Your task to perform on an android device: turn on notifications settings in the gmail app Image 0: 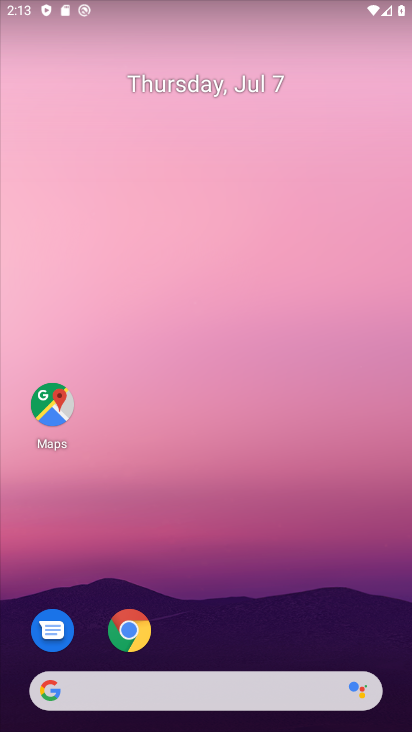
Step 0: drag from (242, 680) to (276, 265)
Your task to perform on an android device: turn on notifications settings in the gmail app Image 1: 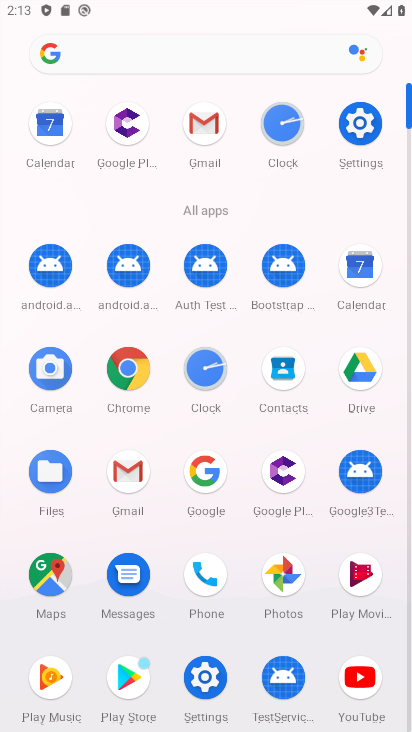
Step 1: click (210, 134)
Your task to perform on an android device: turn on notifications settings in the gmail app Image 2: 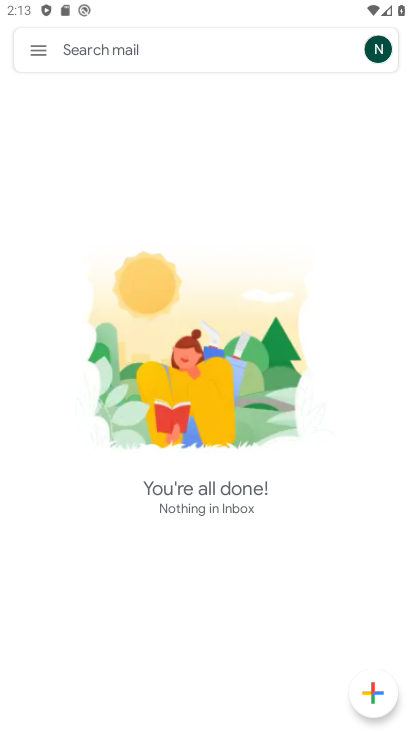
Step 2: click (26, 51)
Your task to perform on an android device: turn on notifications settings in the gmail app Image 3: 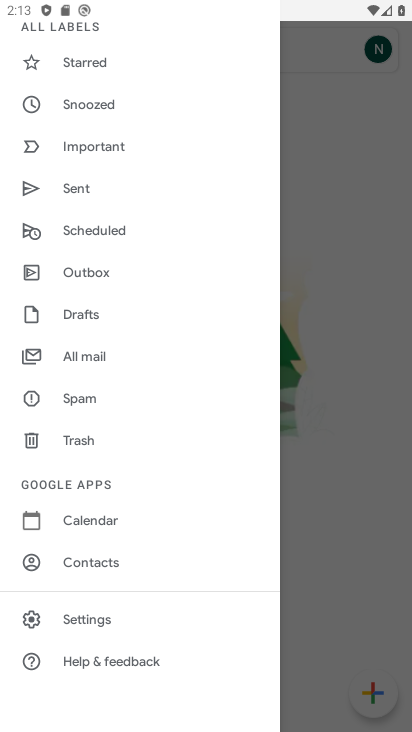
Step 3: click (97, 619)
Your task to perform on an android device: turn on notifications settings in the gmail app Image 4: 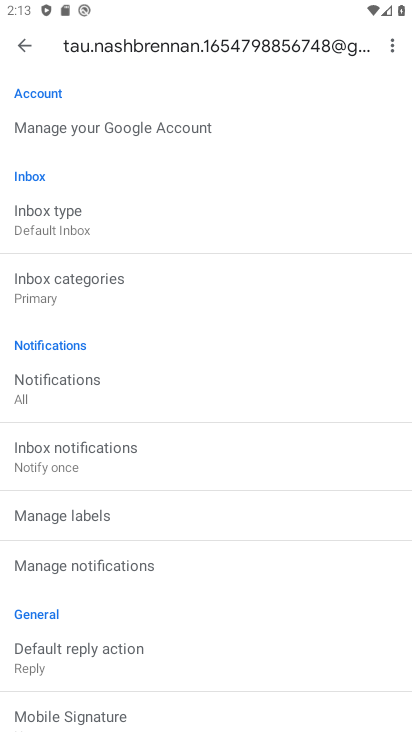
Step 4: click (30, 46)
Your task to perform on an android device: turn on notifications settings in the gmail app Image 5: 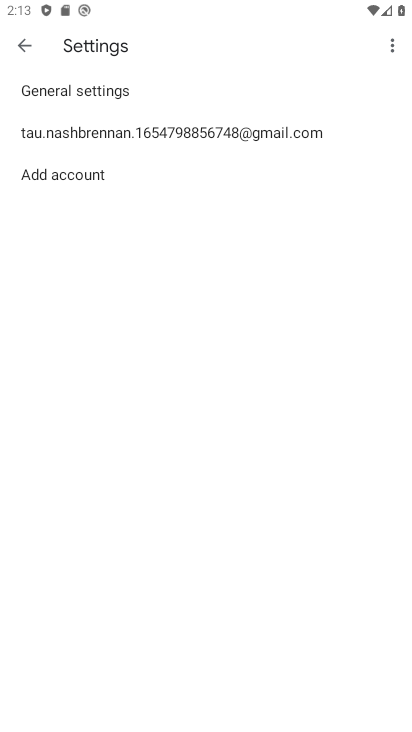
Step 5: click (91, 88)
Your task to perform on an android device: turn on notifications settings in the gmail app Image 6: 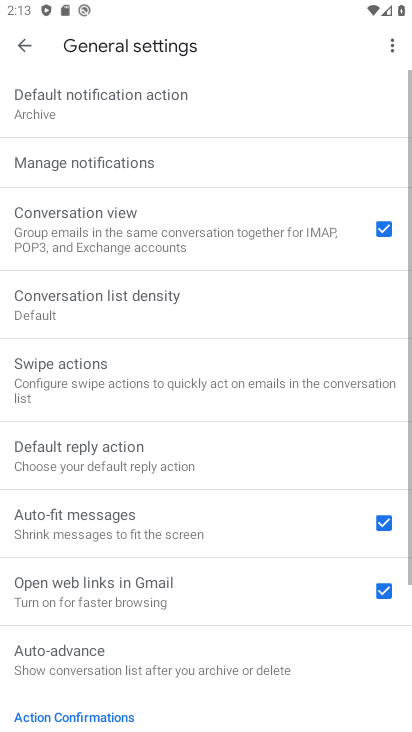
Step 6: click (94, 168)
Your task to perform on an android device: turn on notifications settings in the gmail app Image 7: 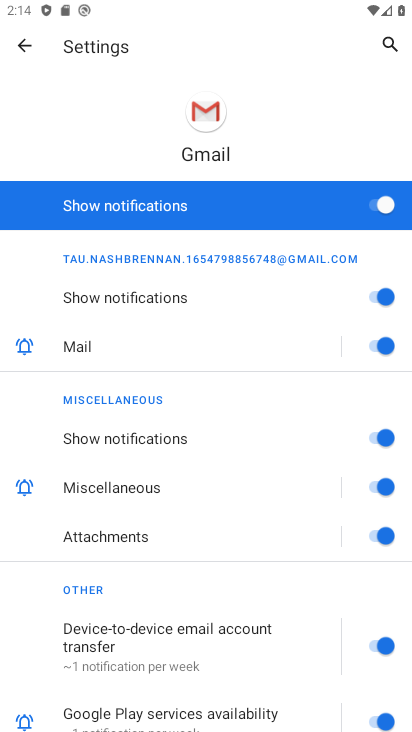
Step 7: task complete